Your task to perform on an android device: see tabs open on other devices in the chrome app Image 0: 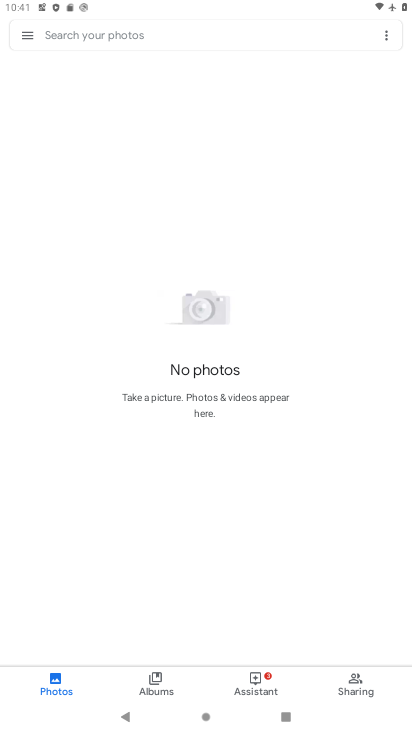
Step 0: task complete